Your task to perform on an android device: check storage Image 0: 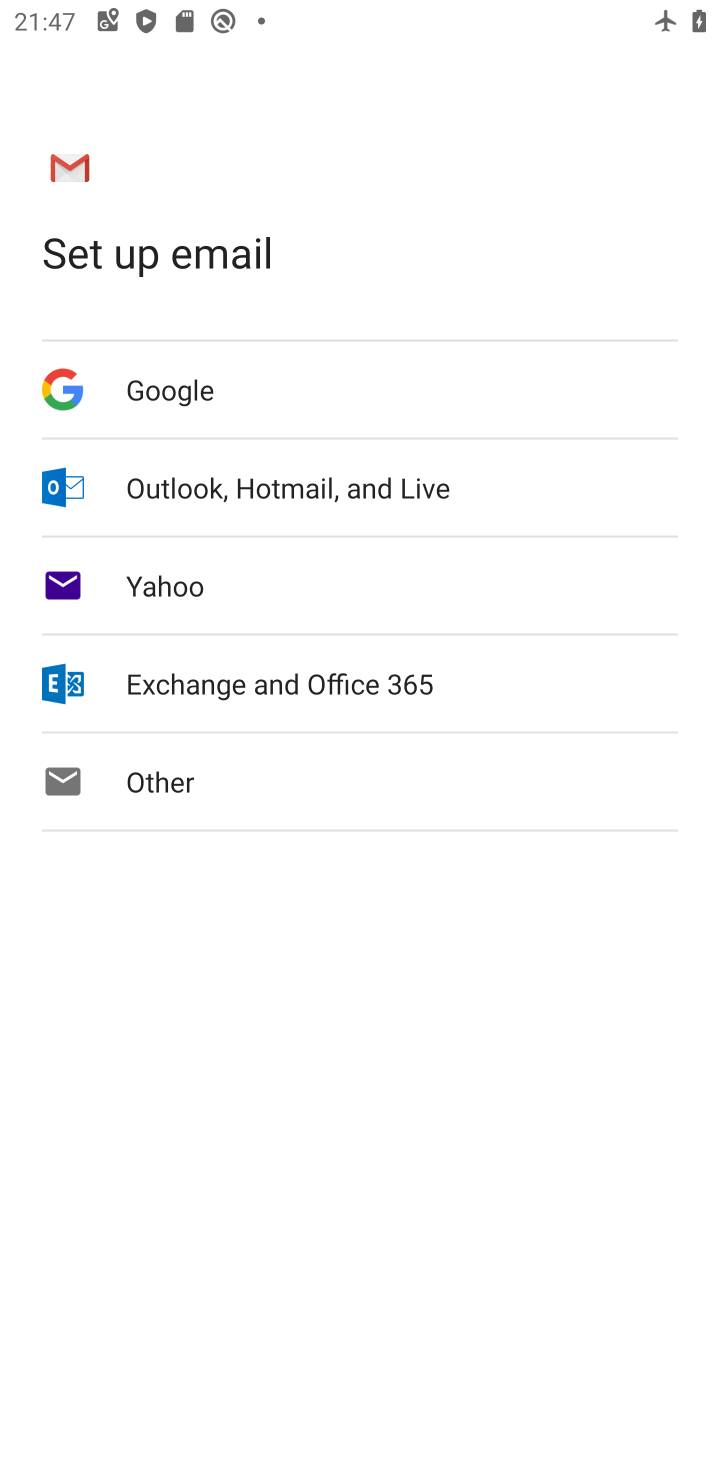
Step 0: press home button
Your task to perform on an android device: check storage Image 1: 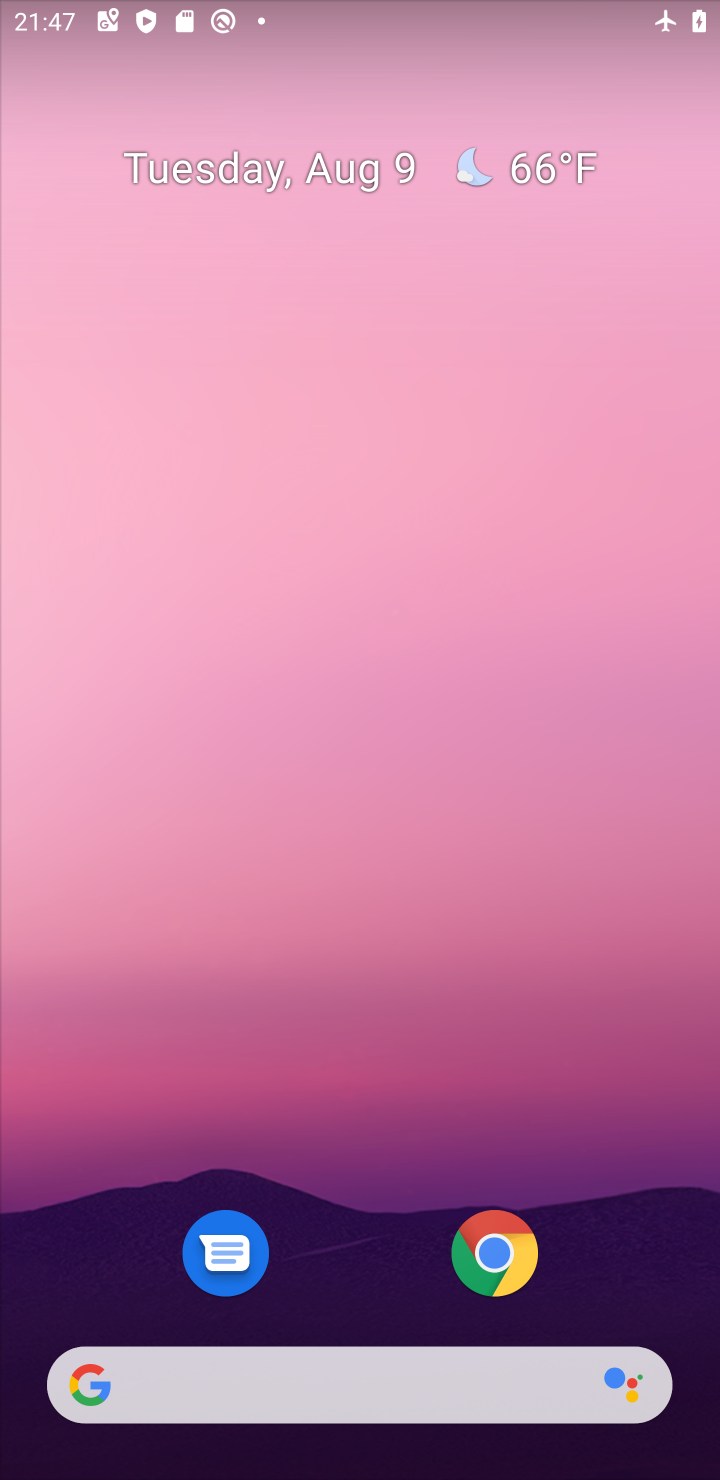
Step 1: drag from (340, 1242) to (419, 42)
Your task to perform on an android device: check storage Image 2: 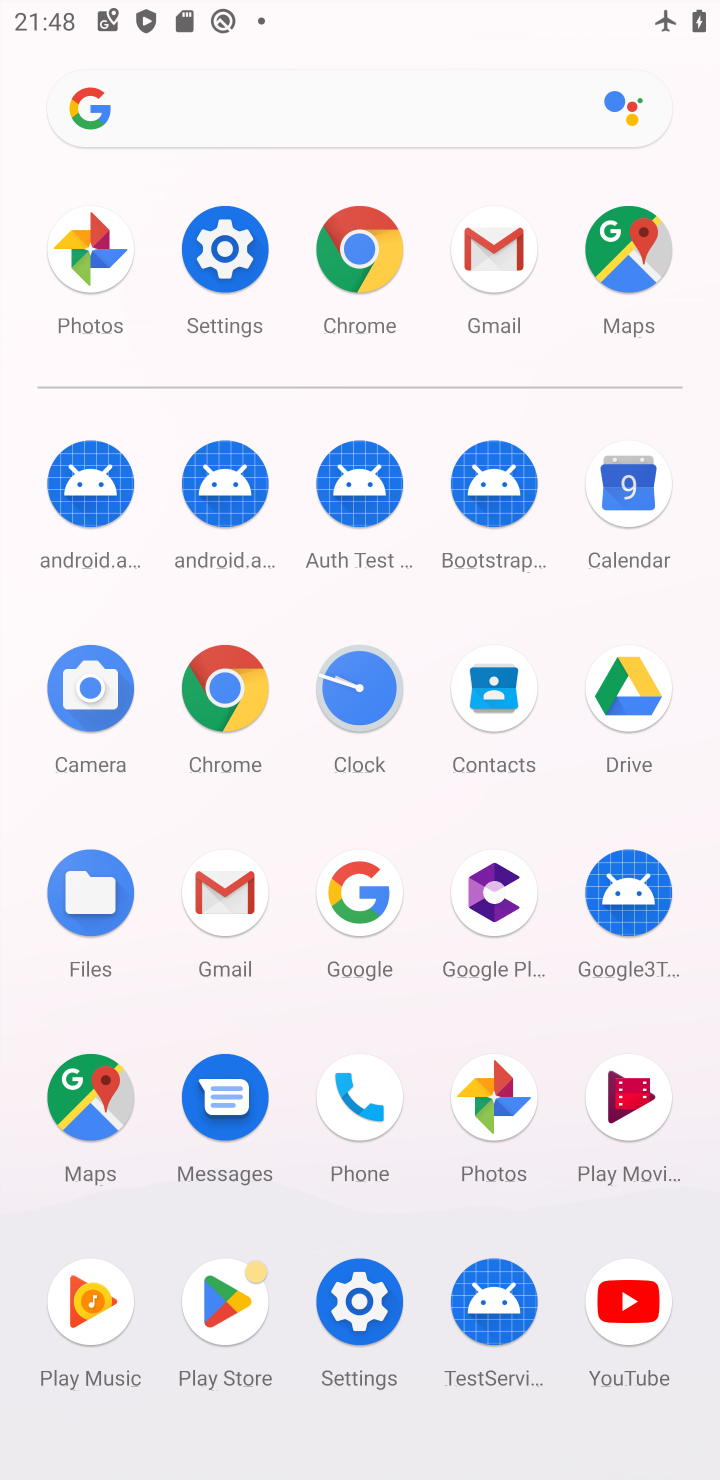
Step 2: click (355, 1331)
Your task to perform on an android device: check storage Image 3: 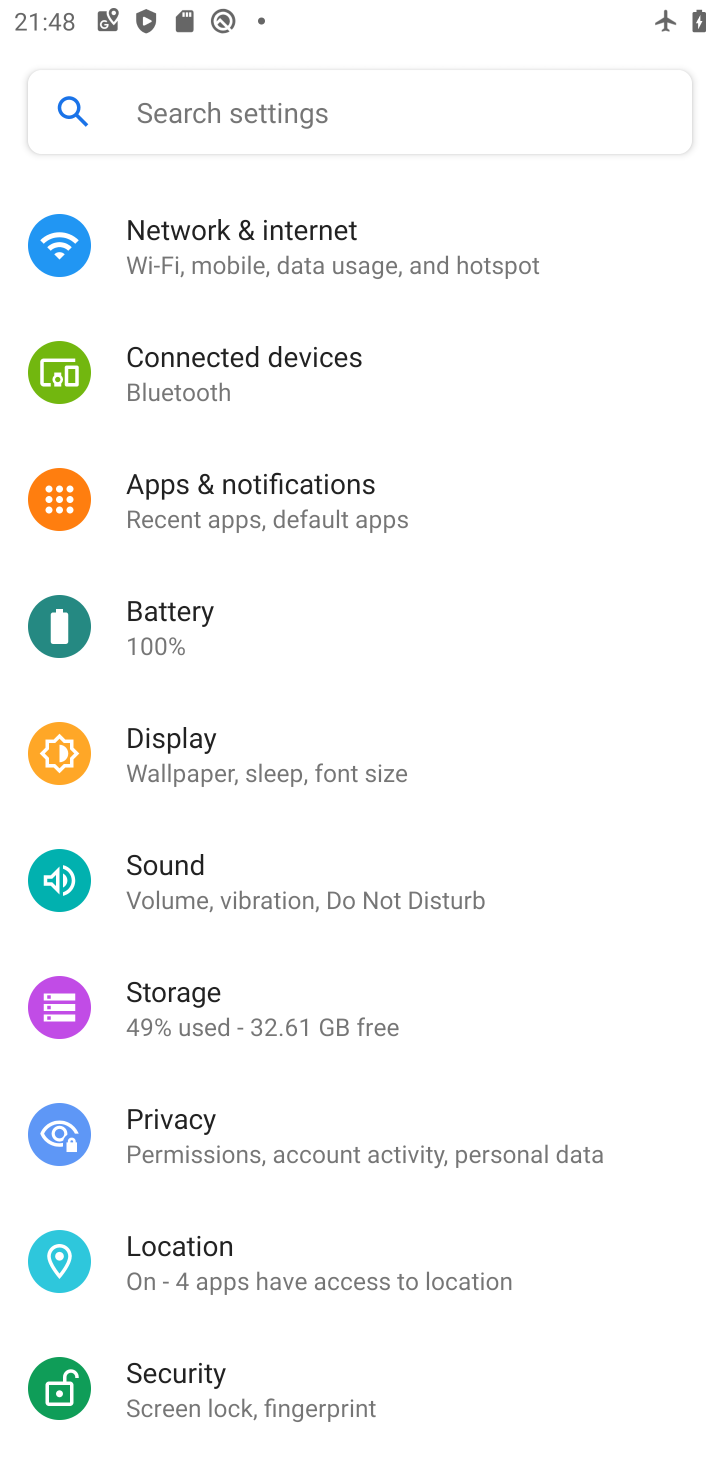
Step 3: click (219, 1029)
Your task to perform on an android device: check storage Image 4: 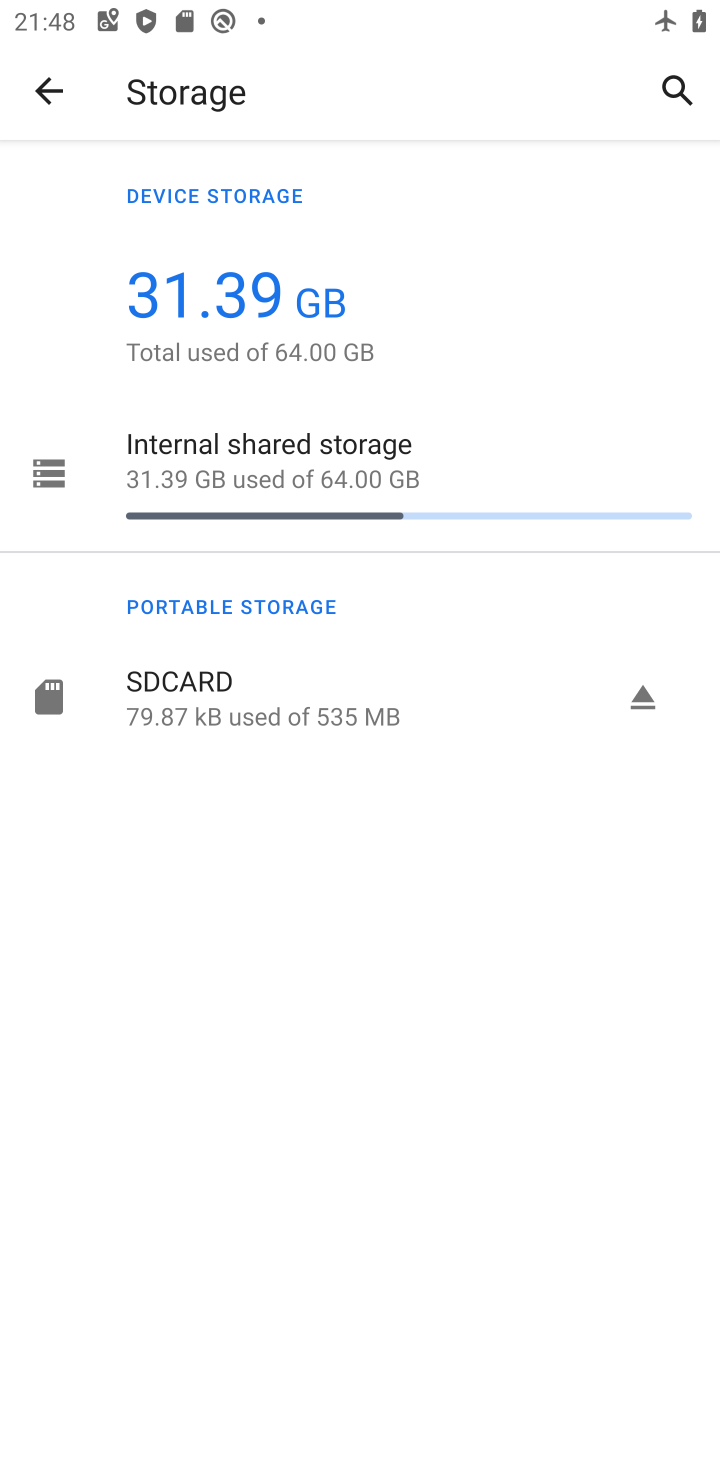
Step 4: task complete